Your task to perform on an android device: toggle wifi Image 0: 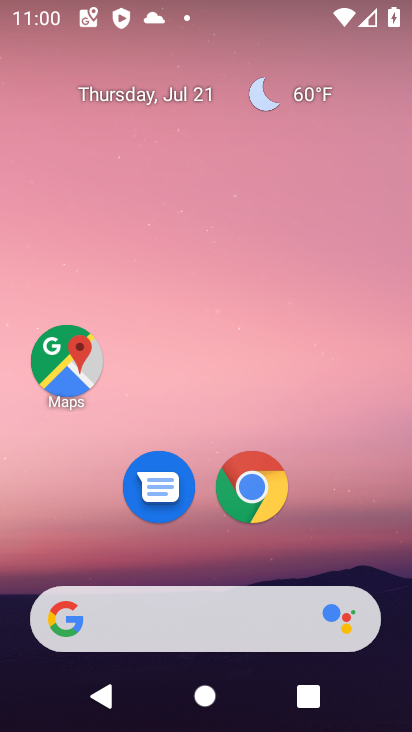
Step 0: drag from (150, 13) to (205, 572)
Your task to perform on an android device: toggle wifi Image 1: 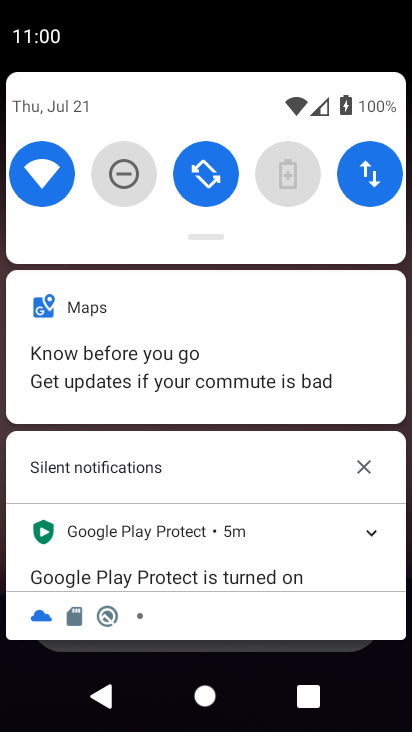
Step 1: click (49, 176)
Your task to perform on an android device: toggle wifi Image 2: 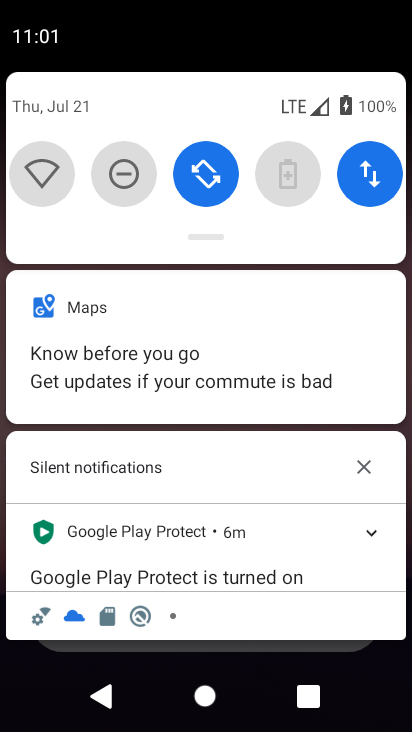
Step 2: task complete